Your task to perform on an android device: What is the recent news? Image 0: 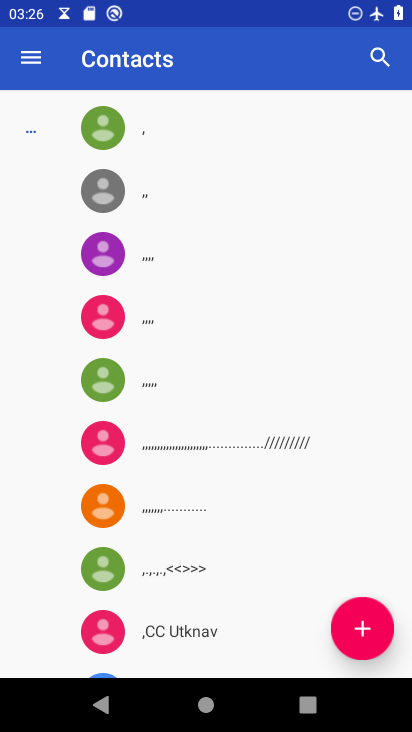
Step 0: press home button
Your task to perform on an android device: What is the recent news? Image 1: 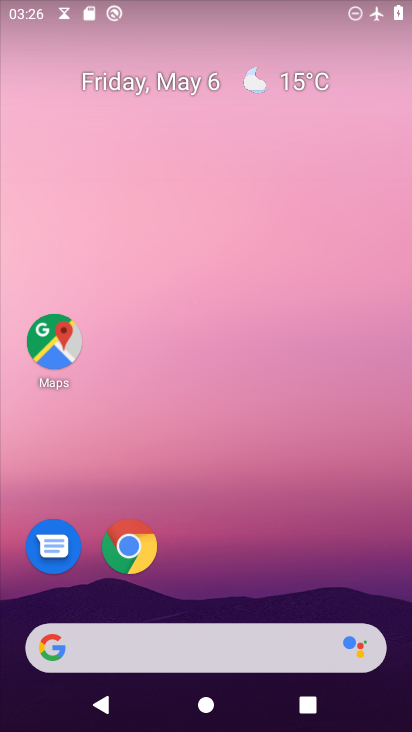
Step 1: click (182, 644)
Your task to perform on an android device: What is the recent news? Image 2: 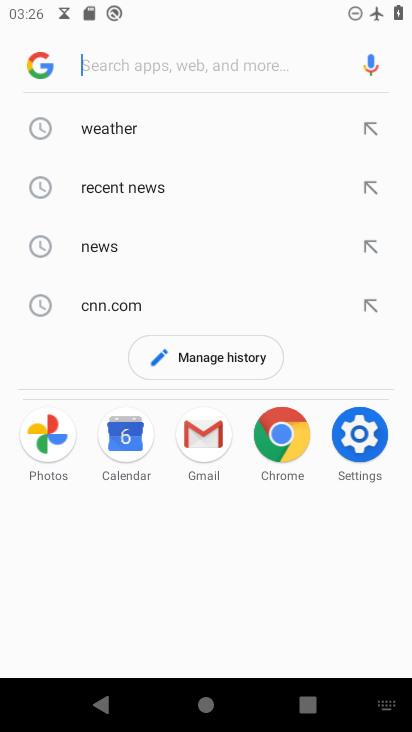
Step 2: click (113, 256)
Your task to perform on an android device: What is the recent news? Image 3: 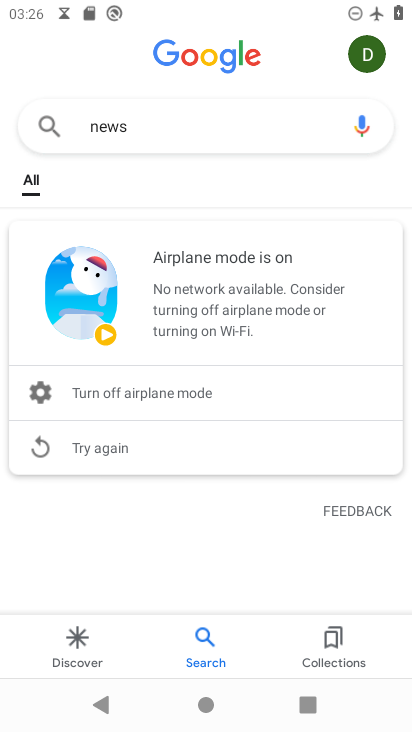
Step 3: task complete